Your task to perform on an android device: Search for asus zenbook on newegg.com, select the first entry, and add it to the cart. Image 0: 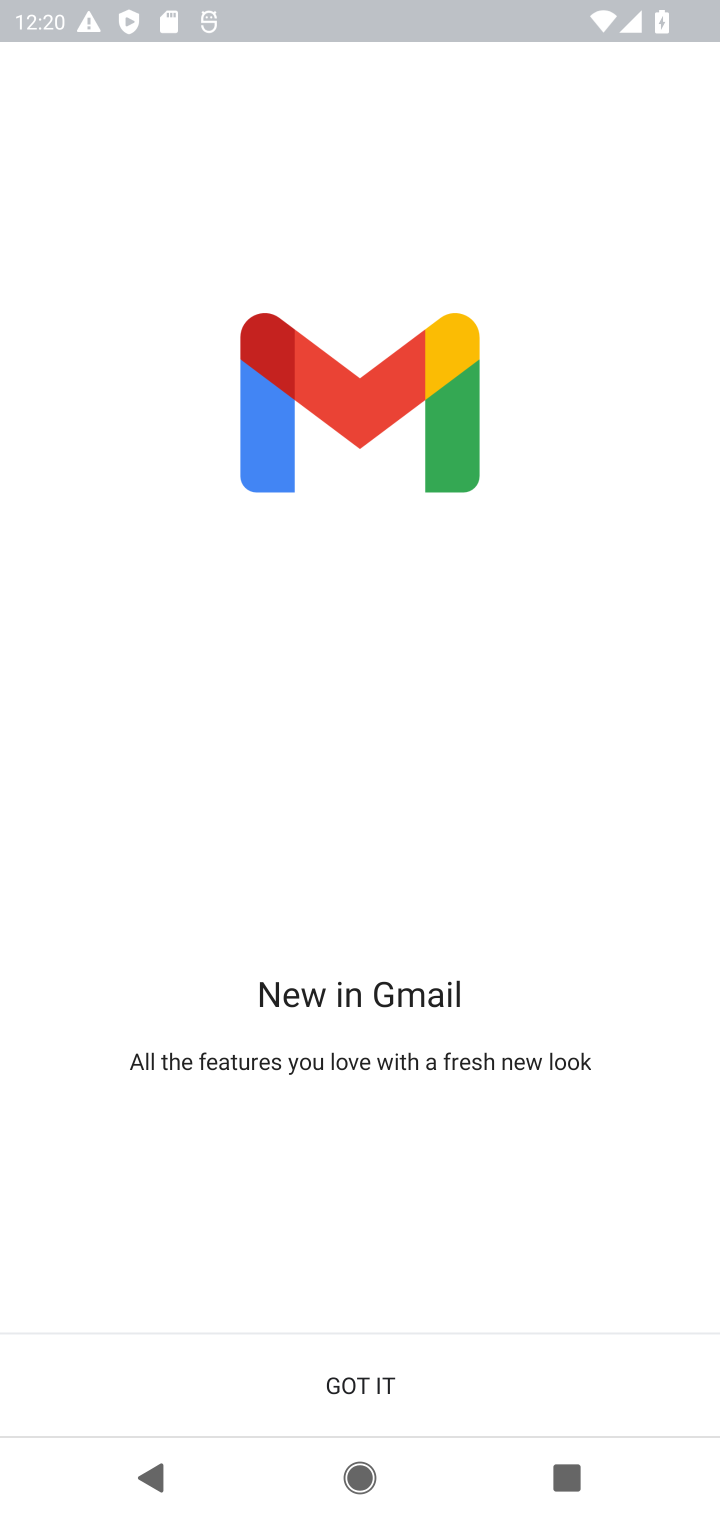
Step 0: press home button
Your task to perform on an android device: Search for asus zenbook on newegg.com, select the first entry, and add it to the cart. Image 1: 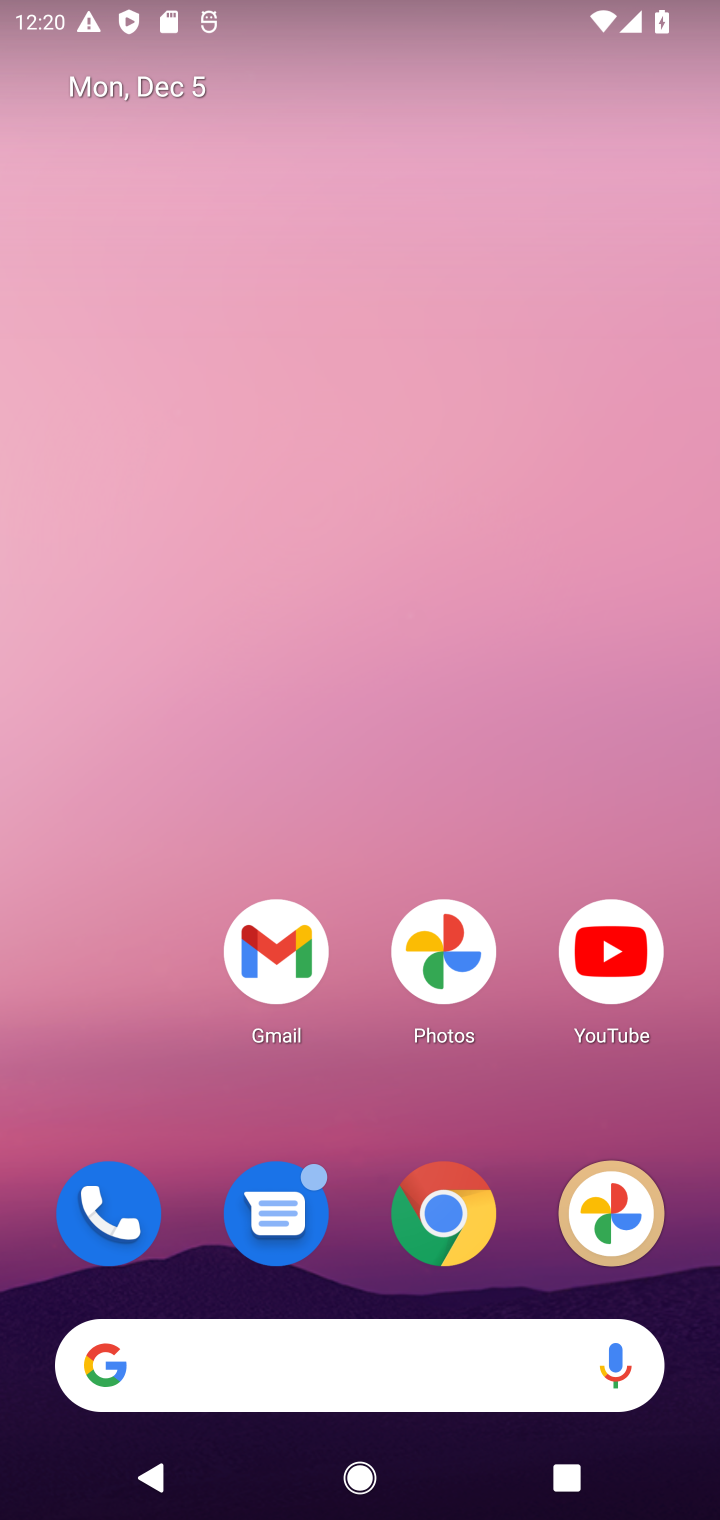
Step 1: click (434, 1218)
Your task to perform on an android device: Search for asus zenbook on newegg.com, select the first entry, and add it to the cart. Image 2: 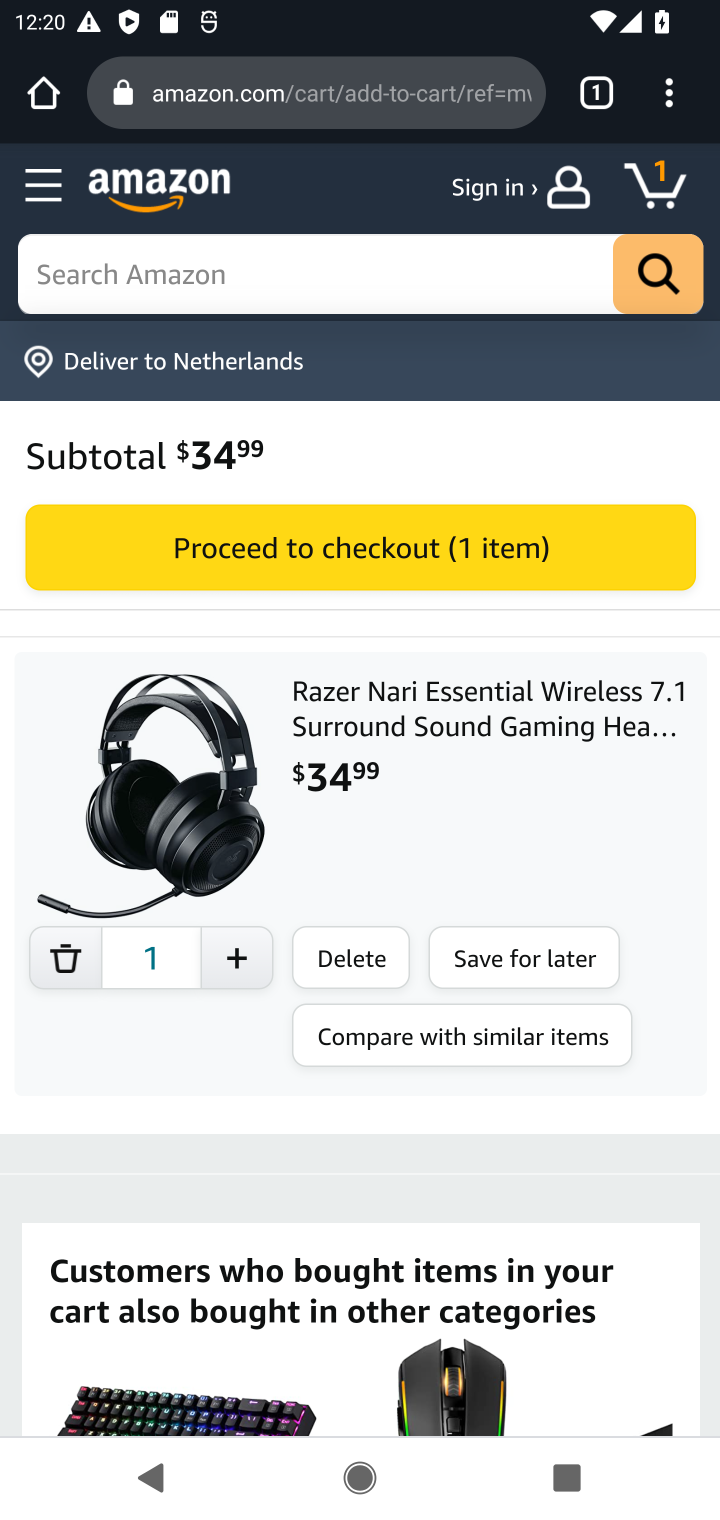
Step 2: click (238, 96)
Your task to perform on an android device: Search for asus zenbook on newegg.com, select the first entry, and add it to the cart. Image 3: 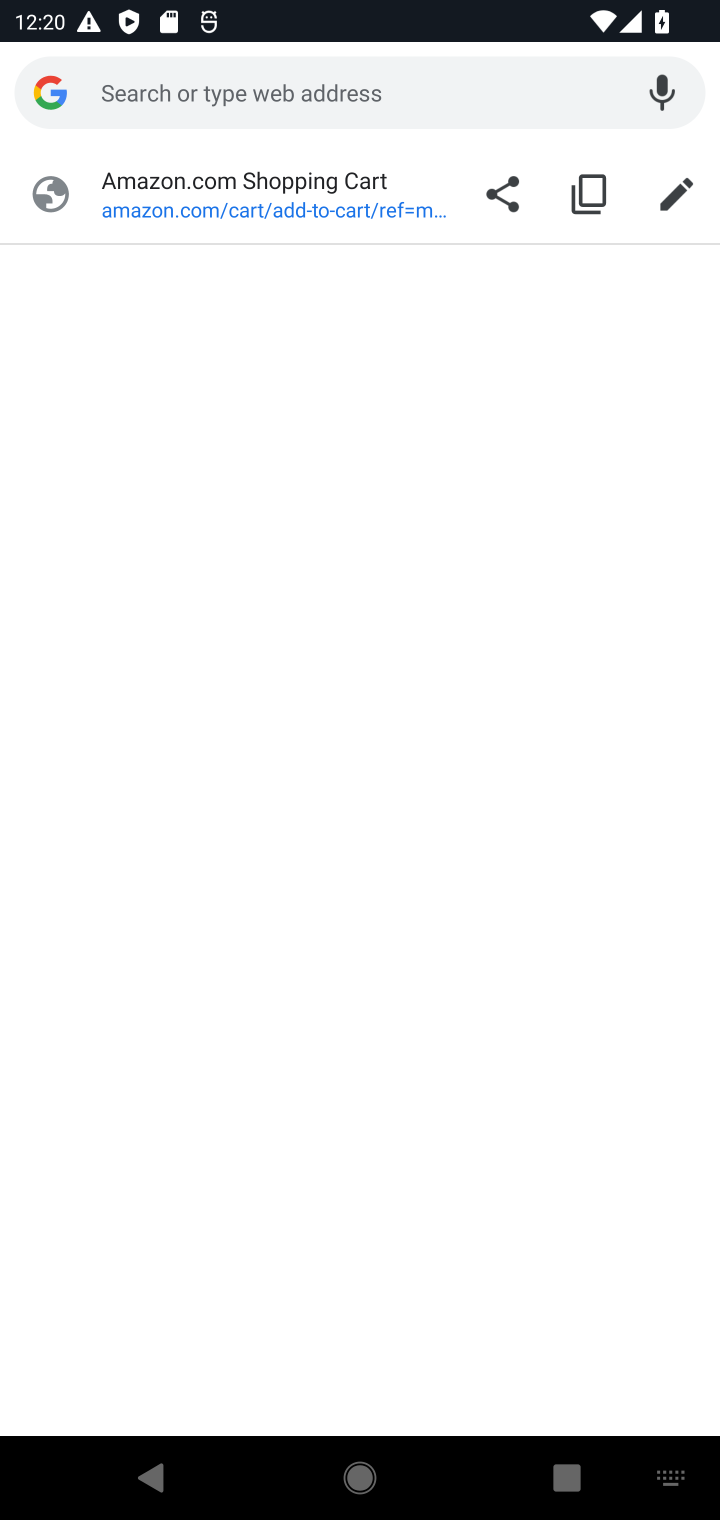
Step 3: type "newegg.com"
Your task to perform on an android device: Search for asus zenbook on newegg.com, select the first entry, and add it to the cart. Image 4: 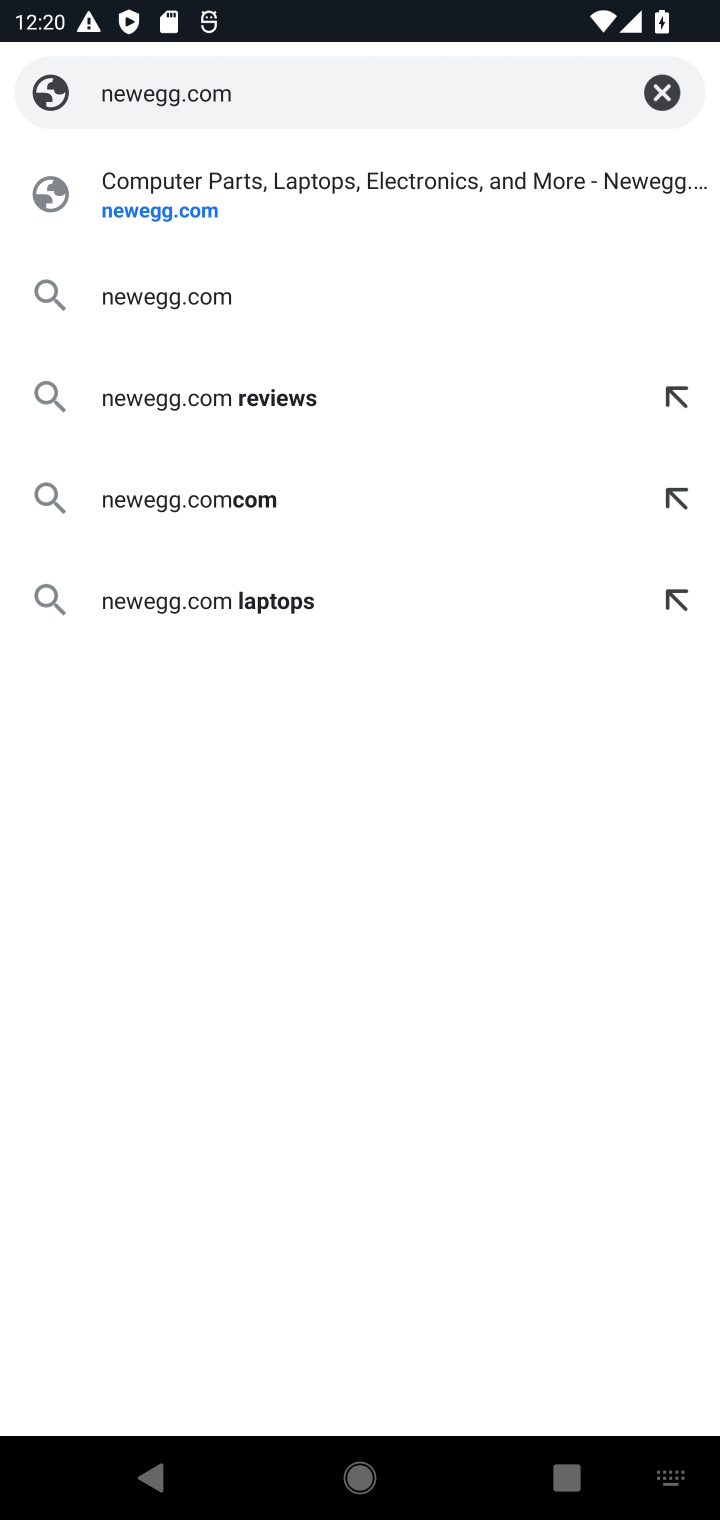
Step 4: click (151, 219)
Your task to perform on an android device: Search for asus zenbook on newegg.com, select the first entry, and add it to the cart. Image 5: 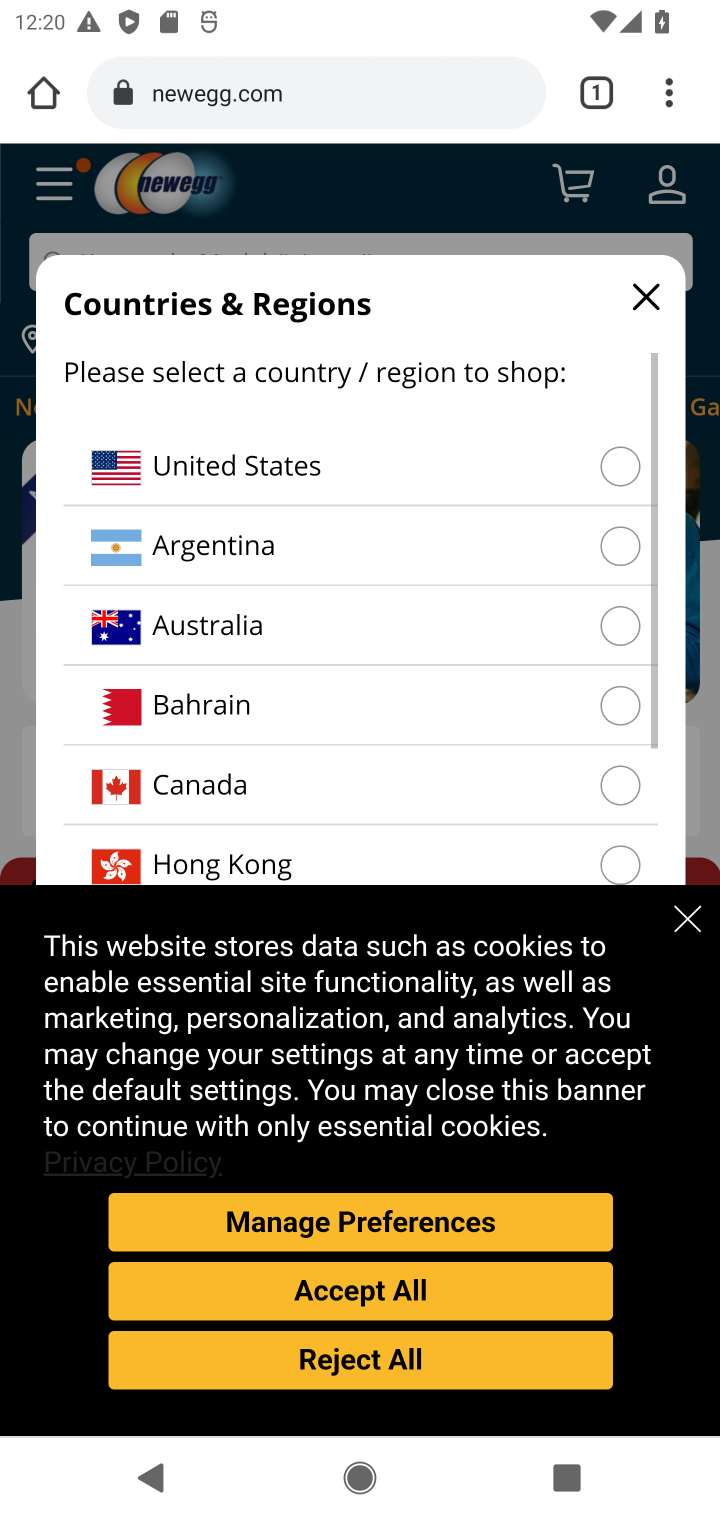
Step 5: click (681, 934)
Your task to perform on an android device: Search for asus zenbook on newegg.com, select the first entry, and add it to the cart. Image 6: 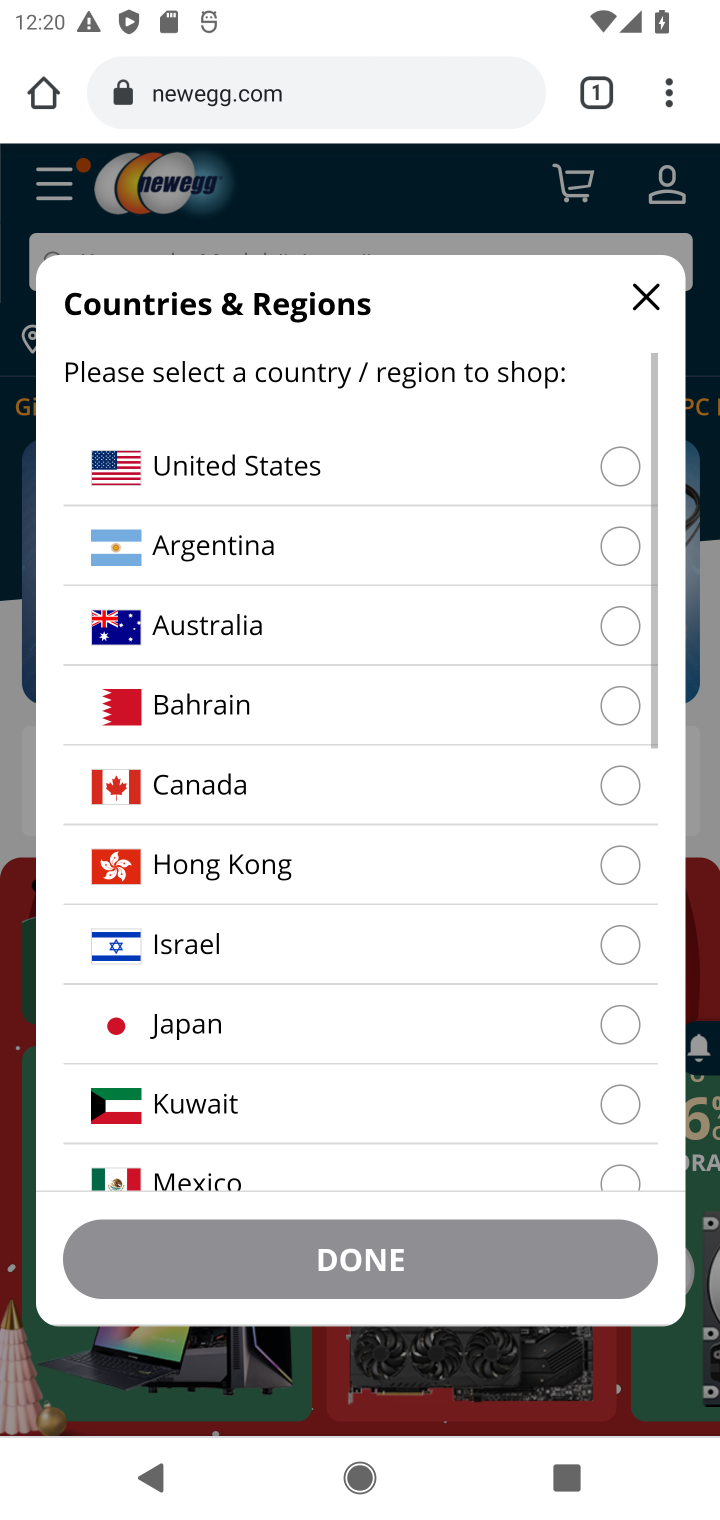
Step 6: click (139, 475)
Your task to perform on an android device: Search for asus zenbook on newegg.com, select the first entry, and add it to the cart. Image 7: 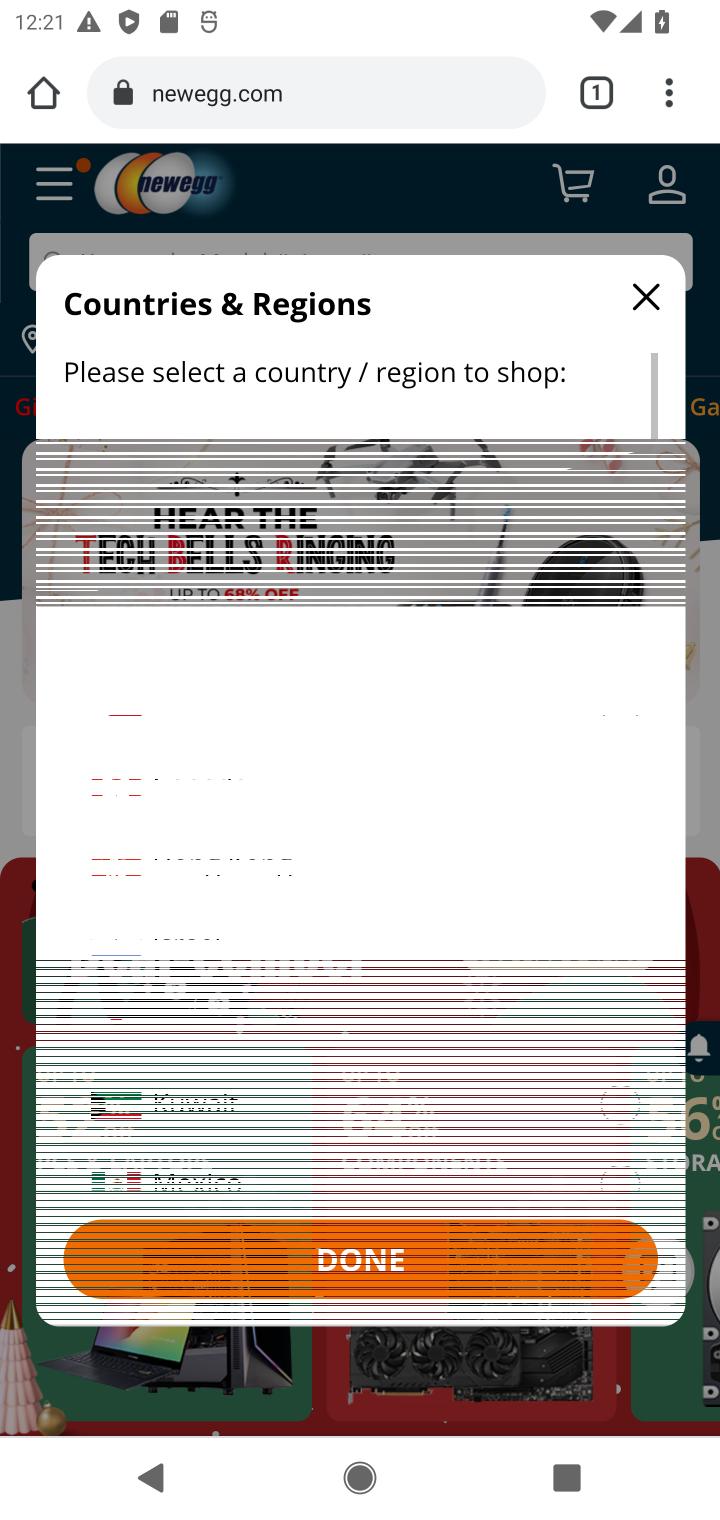
Step 7: click (262, 1245)
Your task to perform on an android device: Search for asus zenbook on newegg.com, select the first entry, and add it to the cart. Image 8: 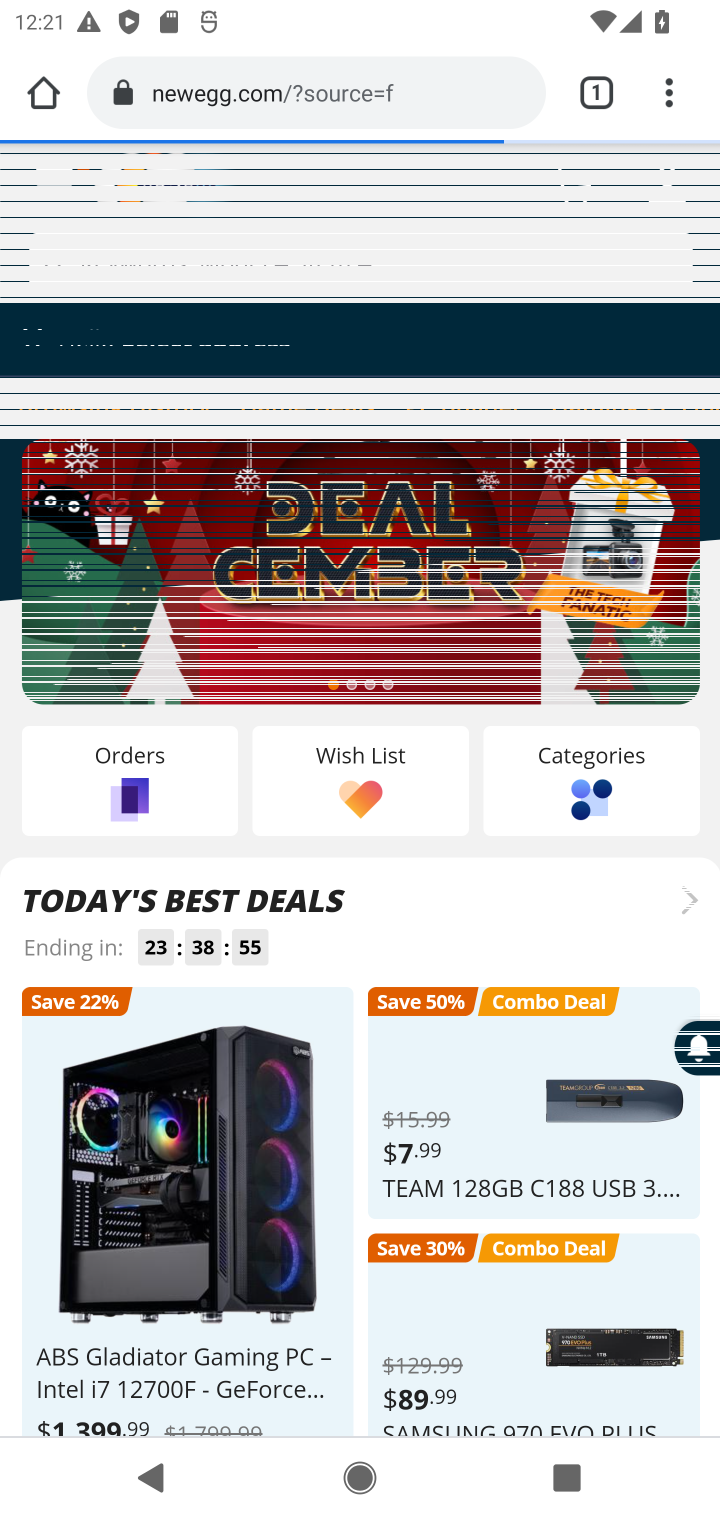
Step 8: click (186, 267)
Your task to perform on an android device: Search for asus zenbook on newegg.com, select the first entry, and add it to the cart. Image 9: 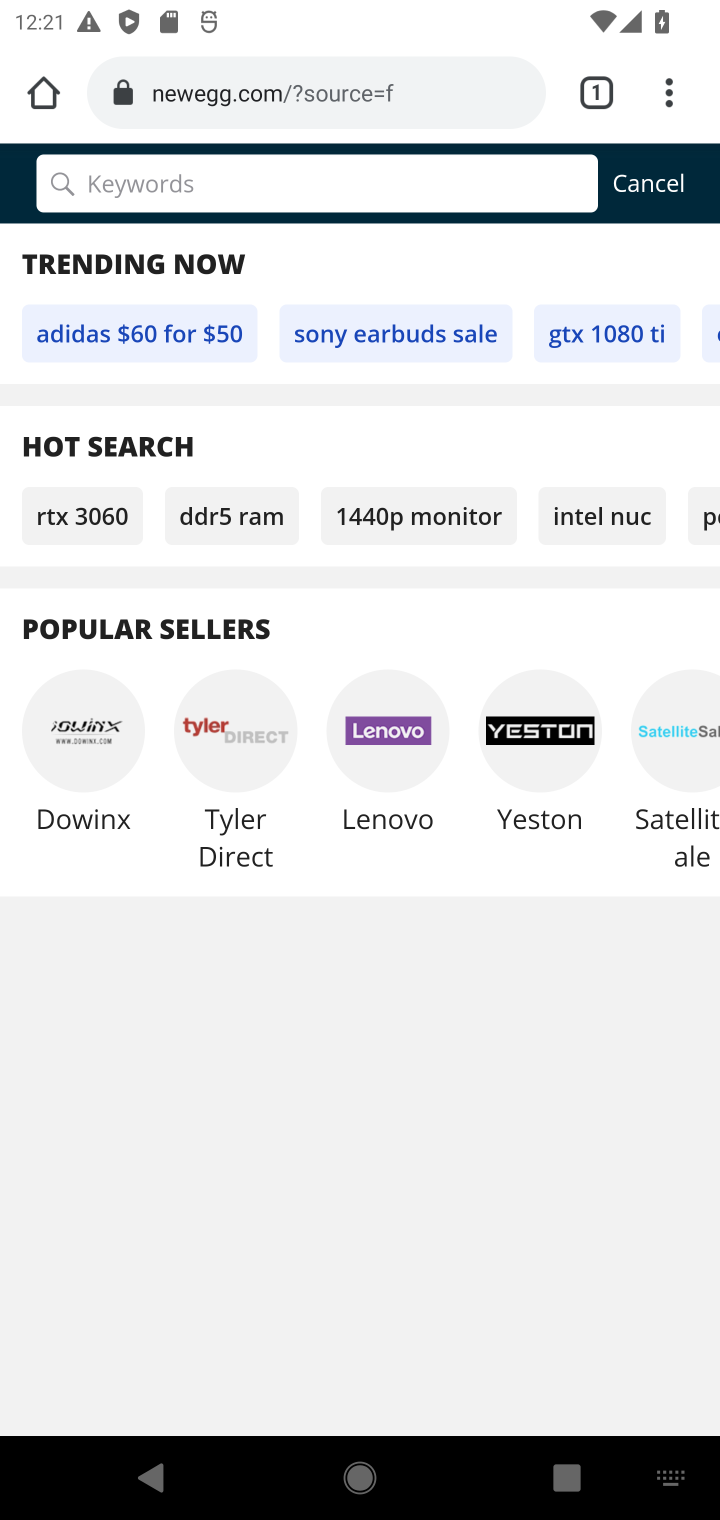
Step 9: type "asus zenbook"
Your task to perform on an android device: Search for asus zenbook on newegg.com, select the first entry, and add it to the cart. Image 10: 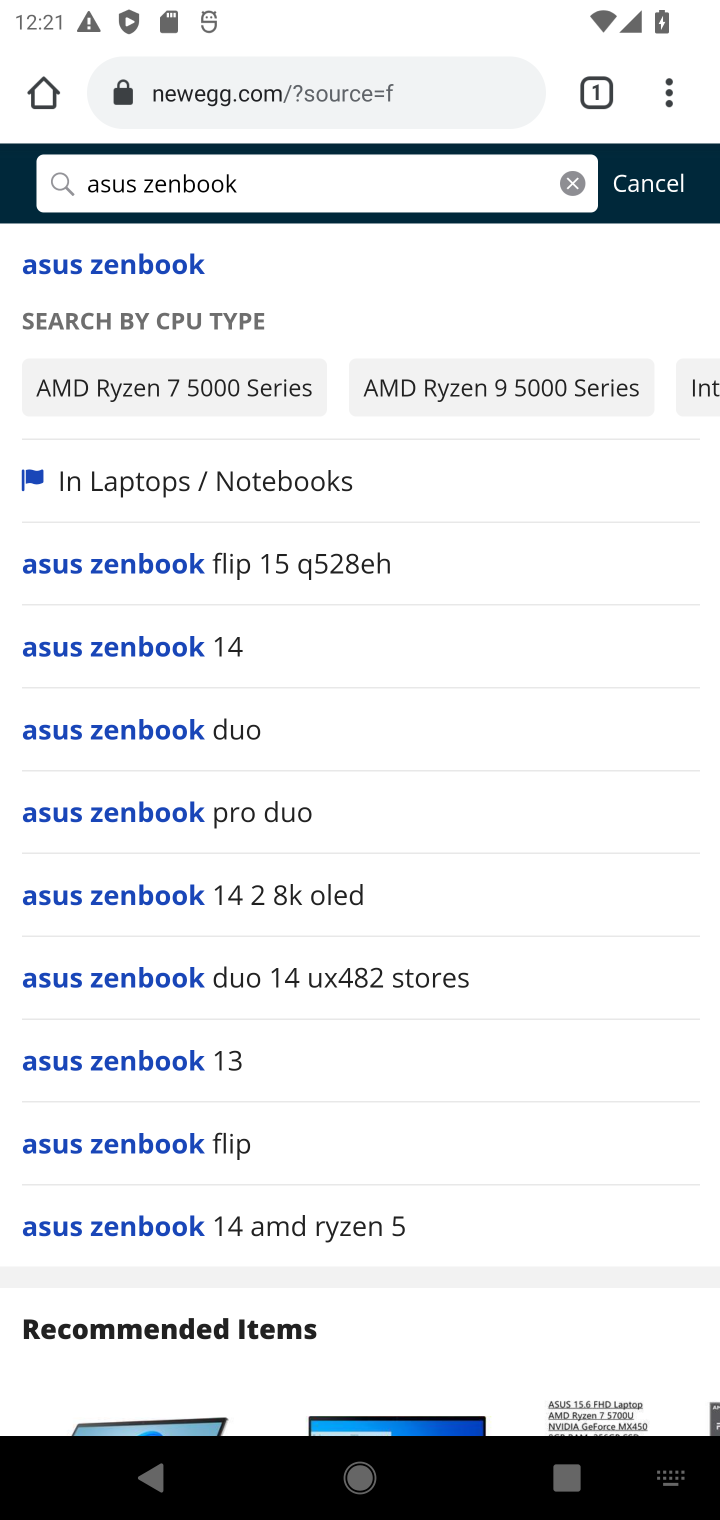
Step 10: click (74, 276)
Your task to perform on an android device: Search for asus zenbook on newegg.com, select the first entry, and add it to the cart. Image 11: 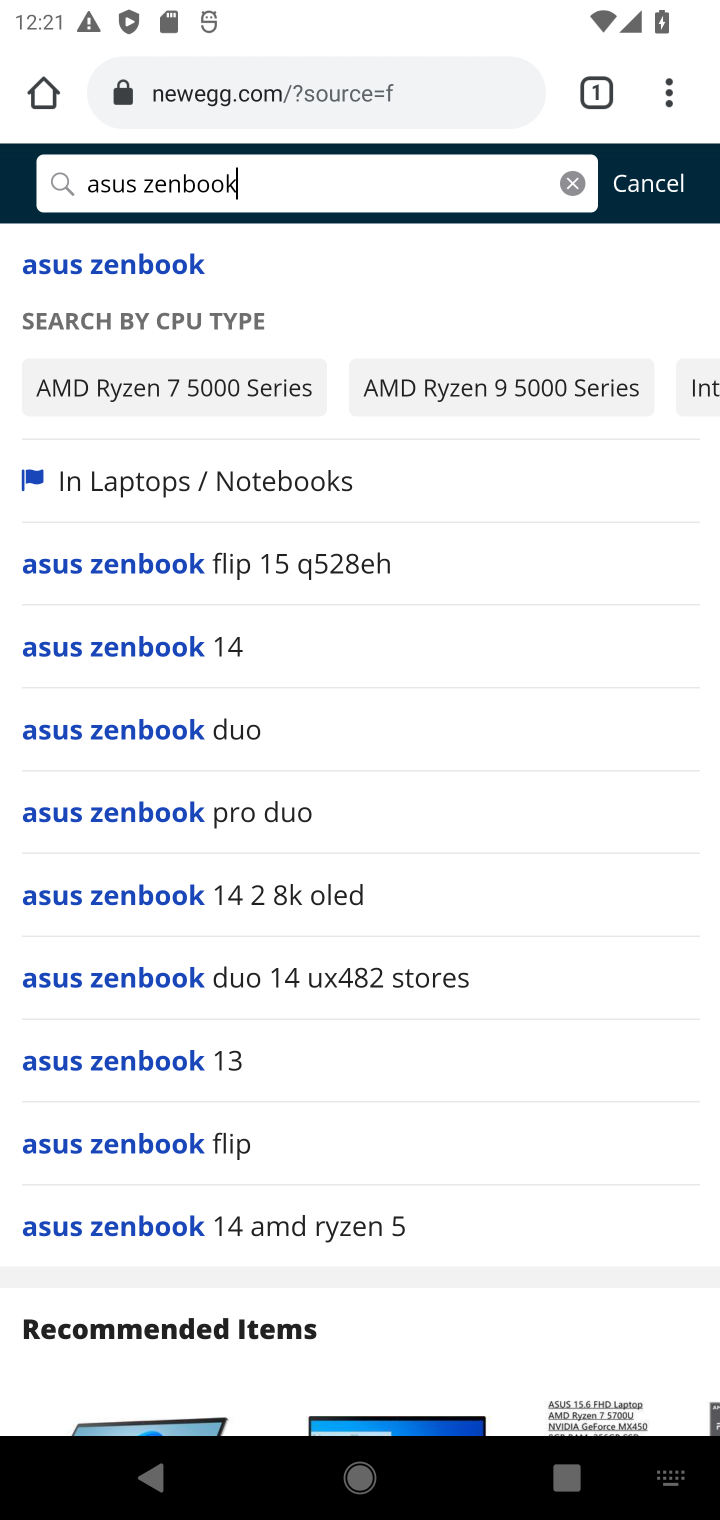
Step 11: click (74, 276)
Your task to perform on an android device: Search for asus zenbook on newegg.com, select the first entry, and add it to the cart. Image 12: 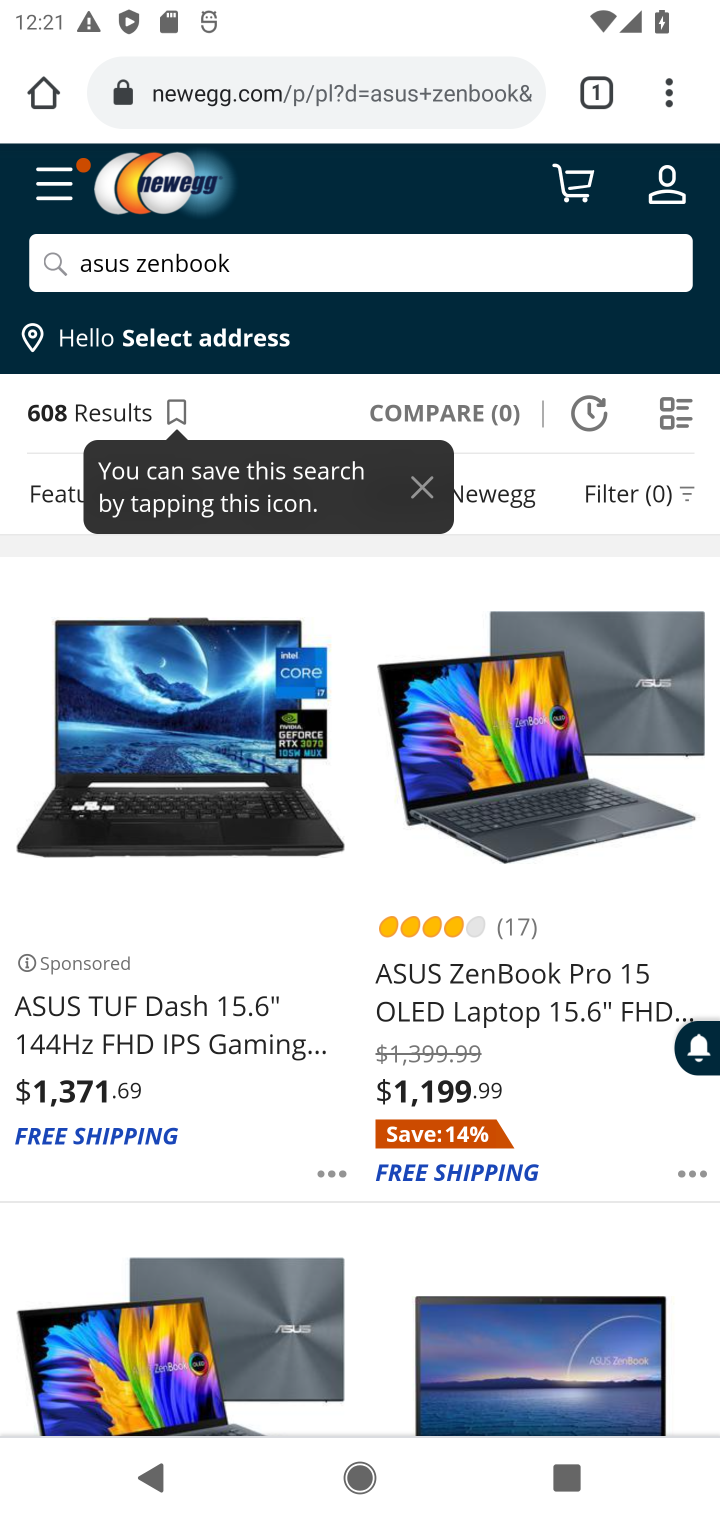
Step 12: task complete